Your task to perform on an android device: turn on notifications settings in the gmail app Image 0: 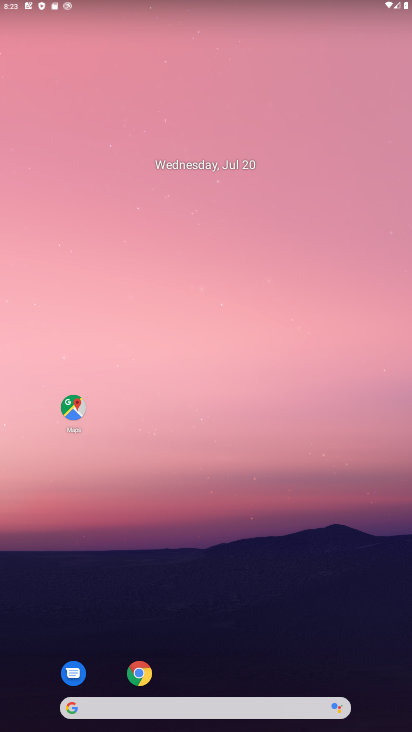
Step 0: drag from (177, 613) to (253, 141)
Your task to perform on an android device: turn on notifications settings in the gmail app Image 1: 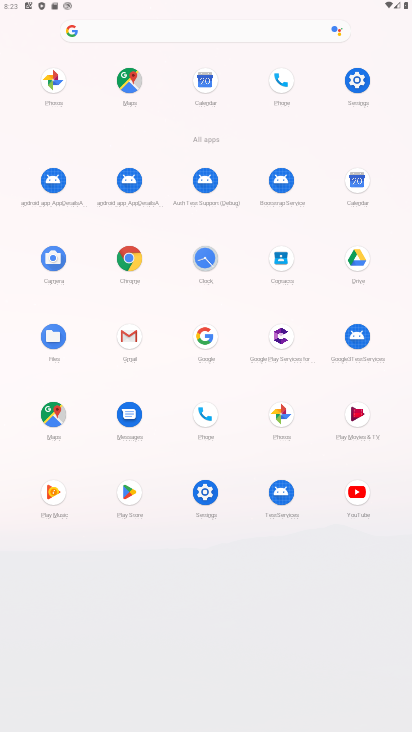
Step 1: click (122, 333)
Your task to perform on an android device: turn on notifications settings in the gmail app Image 2: 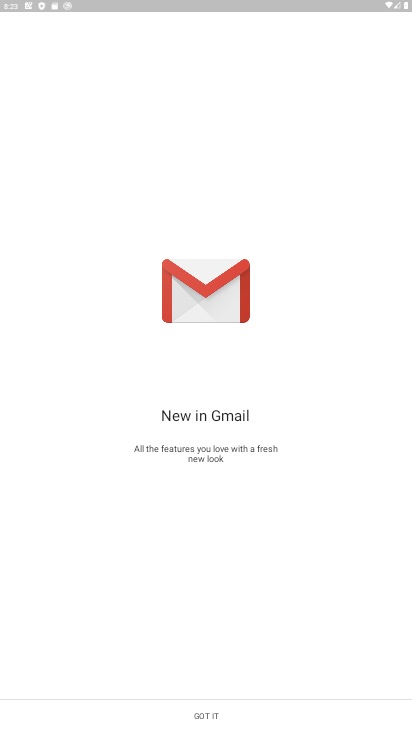
Step 2: drag from (183, 632) to (271, 355)
Your task to perform on an android device: turn on notifications settings in the gmail app Image 3: 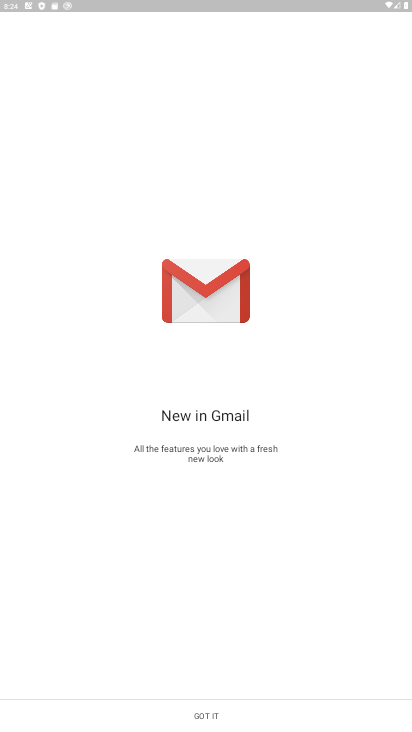
Step 3: click (233, 702)
Your task to perform on an android device: turn on notifications settings in the gmail app Image 4: 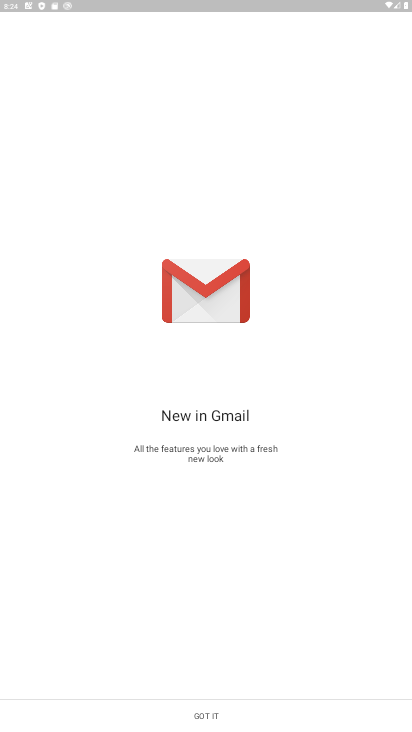
Step 4: click (233, 702)
Your task to perform on an android device: turn on notifications settings in the gmail app Image 5: 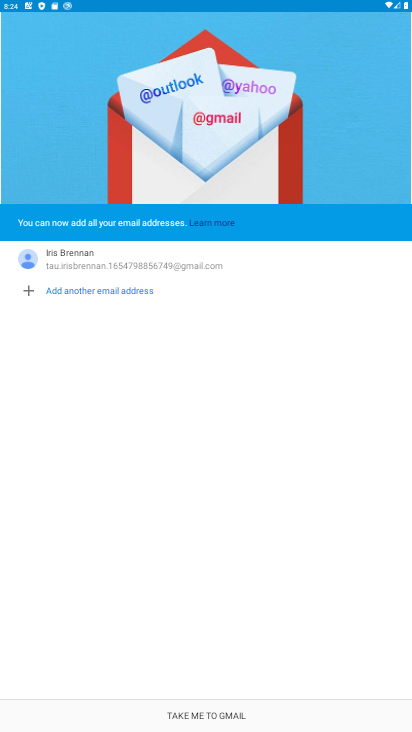
Step 5: click (197, 721)
Your task to perform on an android device: turn on notifications settings in the gmail app Image 6: 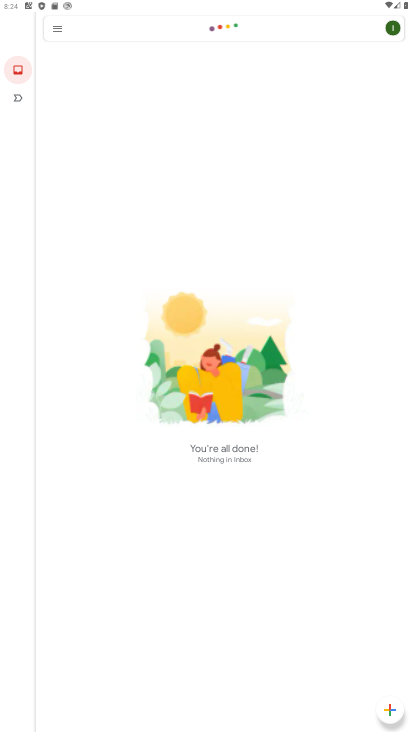
Step 6: click (55, 29)
Your task to perform on an android device: turn on notifications settings in the gmail app Image 7: 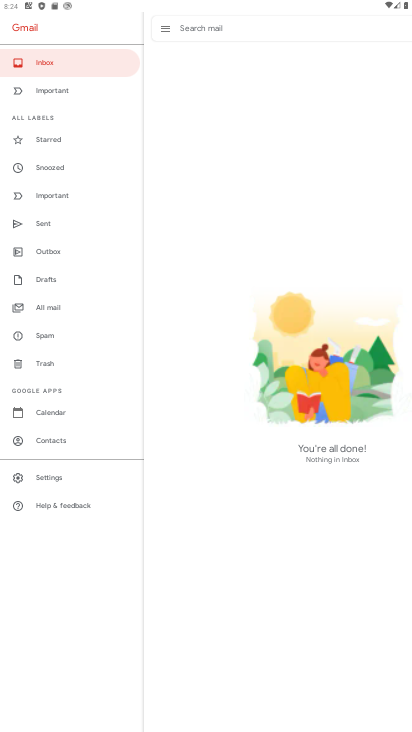
Step 7: click (53, 476)
Your task to perform on an android device: turn on notifications settings in the gmail app Image 8: 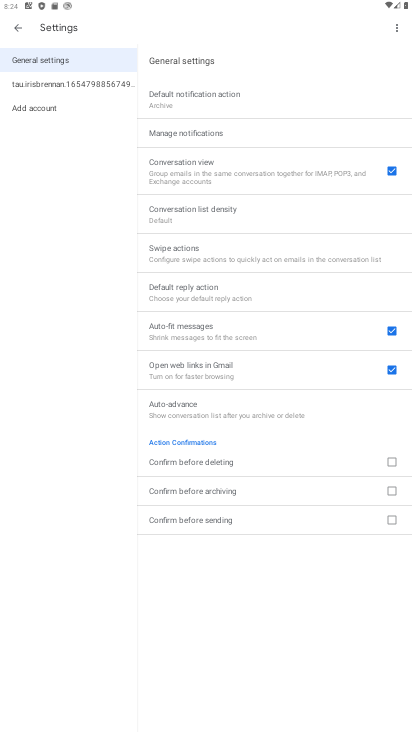
Step 8: click (86, 84)
Your task to perform on an android device: turn on notifications settings in the gmail app Image 9: 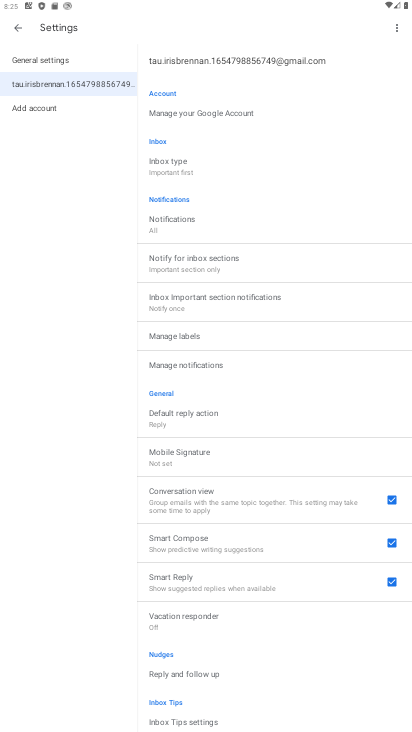
Step 9: click (57, 81)
Your task to perform on an android device: turn on notifications settings in the gmail app Image 10: 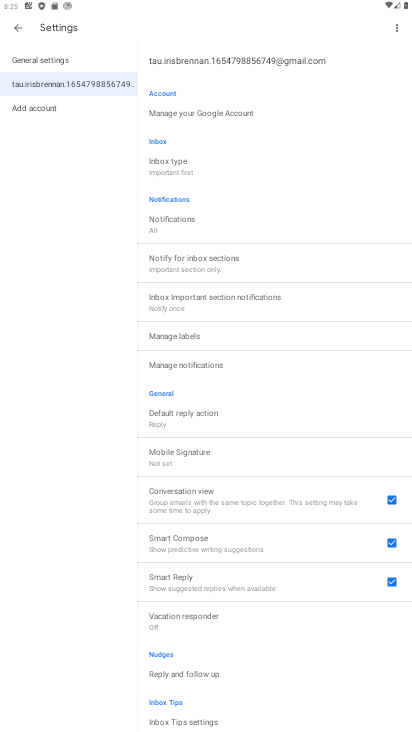
Step 10: click (218, 371)
Your task to perform on an android device: turn on notifications settings in the gmail app Image 11: 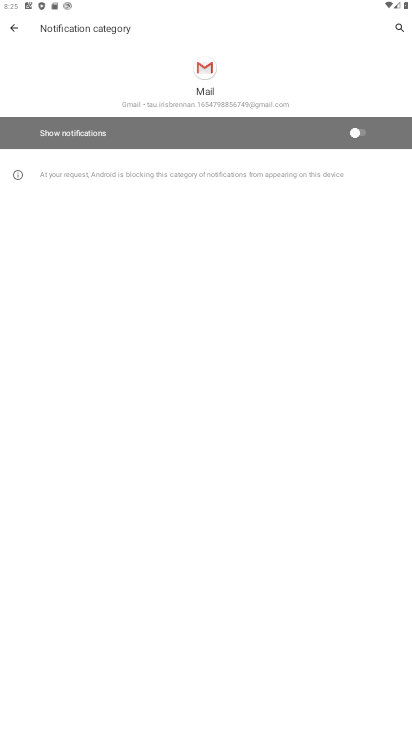
Step 11: click (331, 138)
Your task to perform on an android device: turn on notifications settings in the gmail app Image 12: 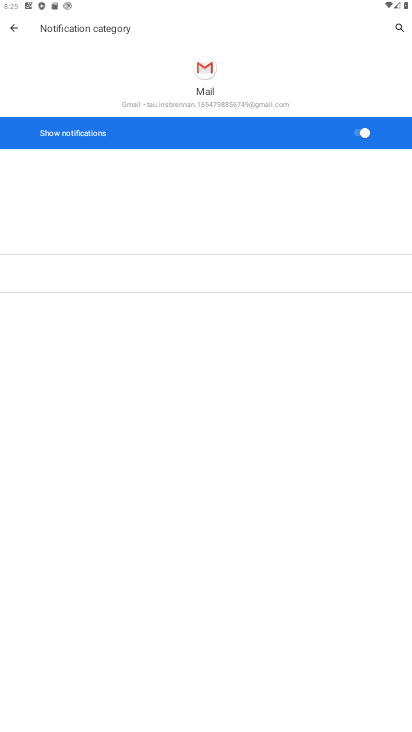
Step 12: task complete